Your task to perform on an android device: See recent photos Image 0: 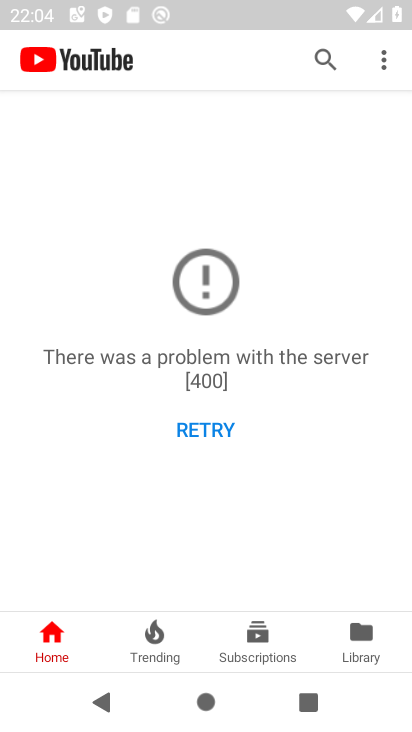
Step 0: press back button
Your task to perform on an android device: See recent photos Image 1: 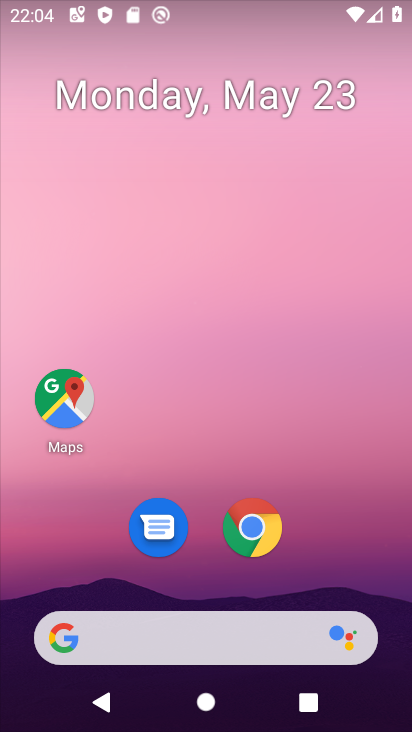
Step 1: drag from (185, 625) to (214, 160)
Your task to perform on an android device: See recent photos Image 2: 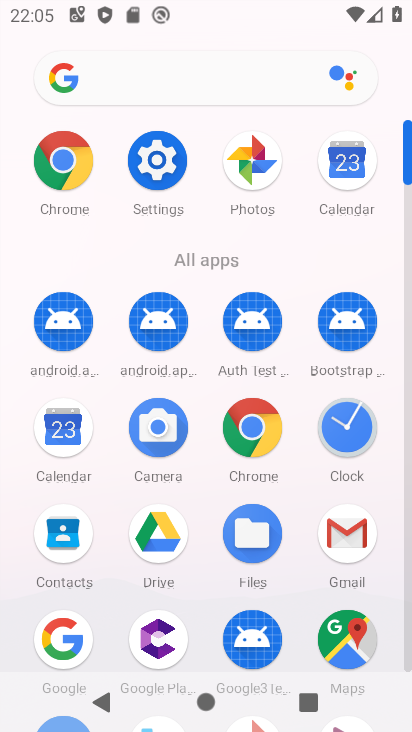
Step 2: click (246, 173)
Your task to perform on an android device: See recent photos Image 3: 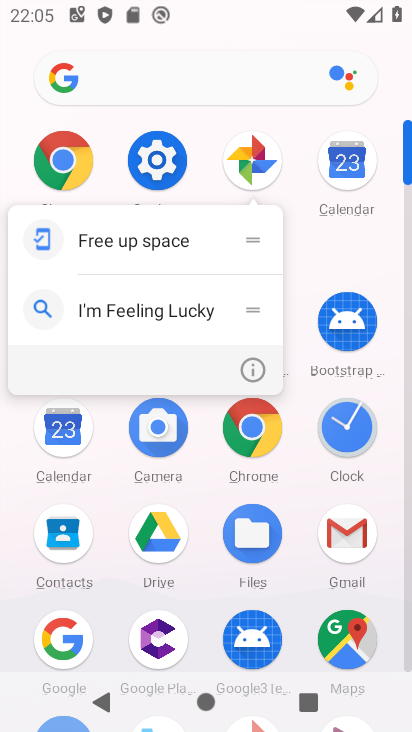
Step 3: click (260, 171)
Your task to perform on an android device: See recent photos Image 4: 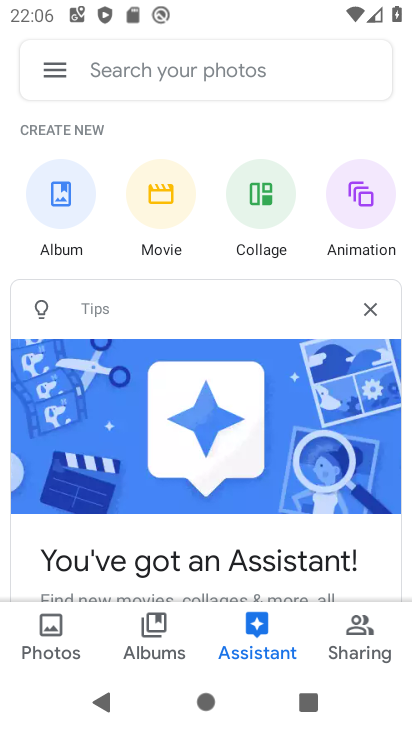
Step 4: click (45, 637)
Your task to perform on an android device: See recent photos Image 5: 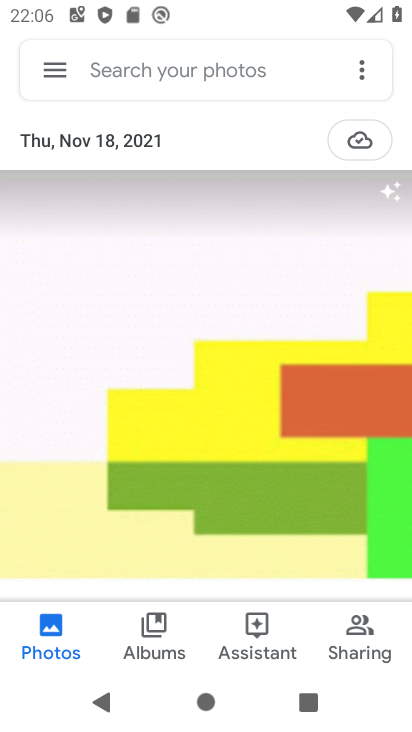
Step 5: task complete